Your task to perform on an android device: set the timer Image 0: 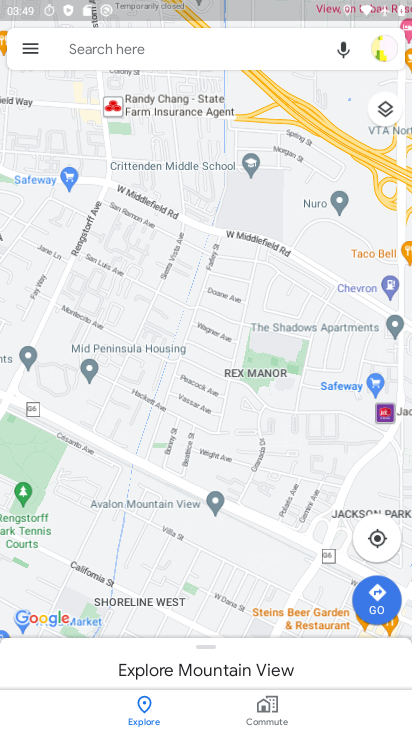
Step 0: press back button
Your task to perform on an android device: set the timer Image 1: 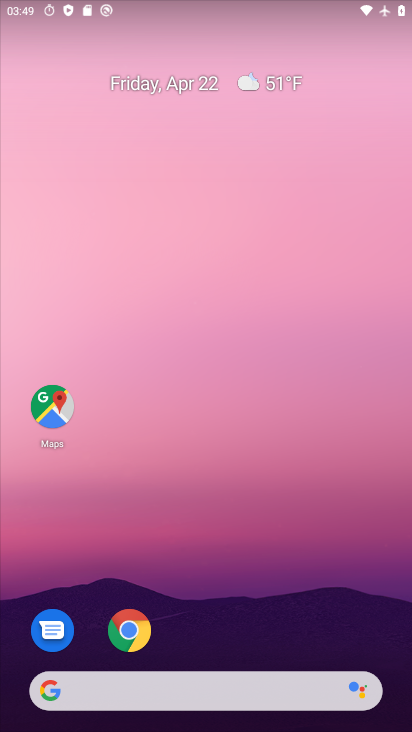
Step 1: drag from (229, 401) to (217, 104)
Your task to perform on an android device: set the timer Image 2: 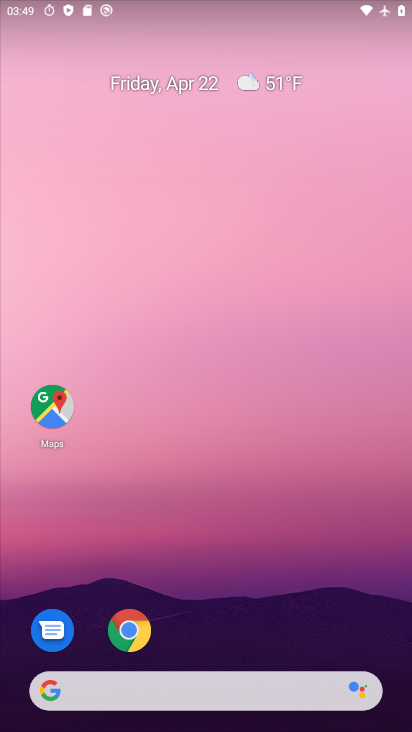
Step 2: drag from (391, 634) to (352, 62)
Your task to perform on an android device: set the timer Image 3: 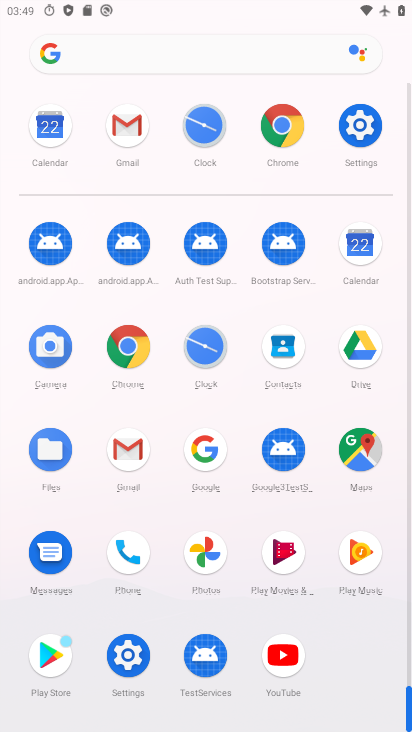
Step 3: drag from (8, 536) to (15, 402)
Your task to perform on an android device: set the timer Image 4: 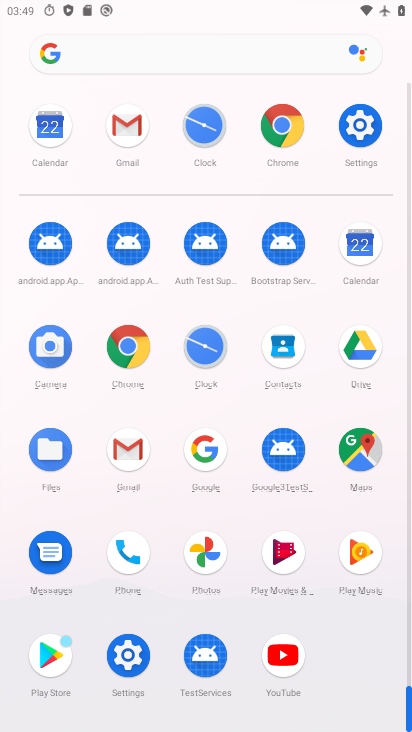
Step 4: click (205, 342)
Your task to perform on an android device: set the timer Image 5: 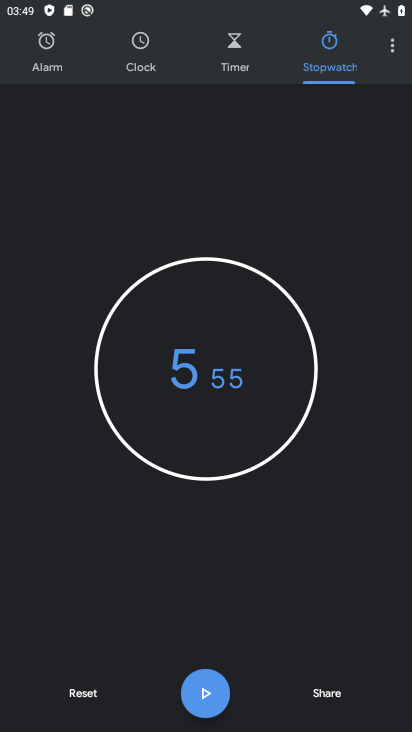
Step 5: click (219, 55)
Your task to perform on an android device: set the timer Image 6: 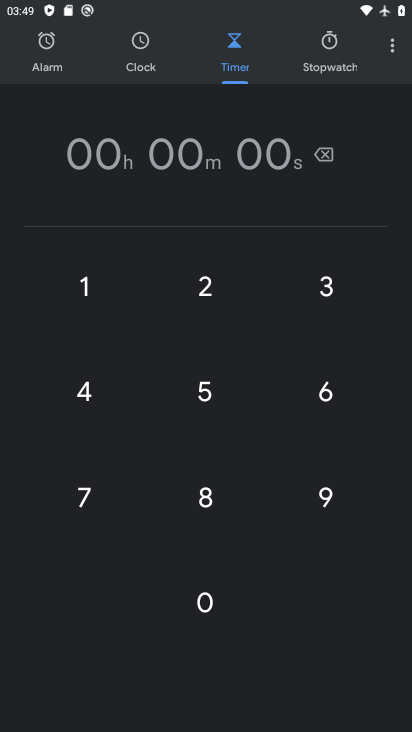
Step 6: click (91, 286)
Your task to perform on an android device: set the timer Image 7: 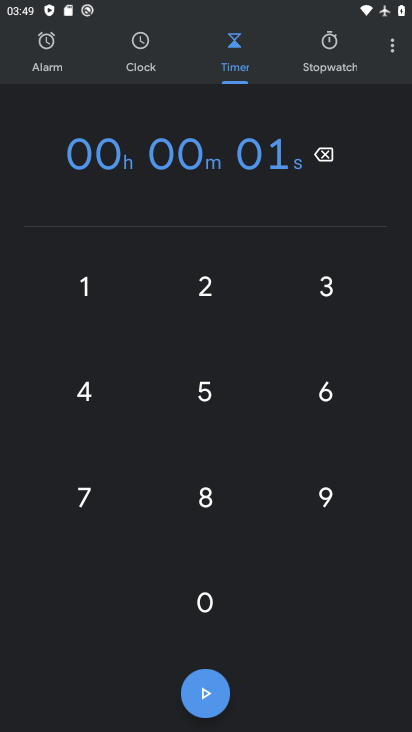
Step 7: click (225, 279)
Your task to perform on an android device: set the timer Image 8: 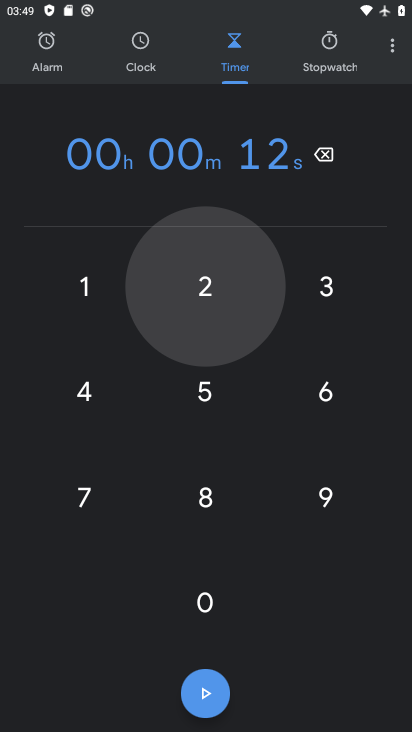
Step 8: click (203, 388)
Your task to perform on an android device: set the timer Image 9: 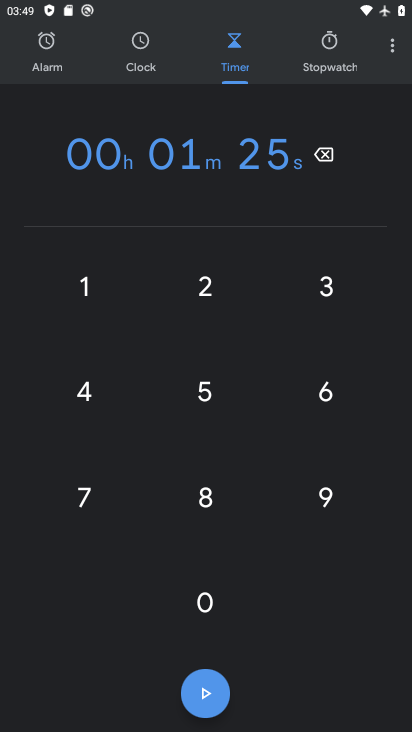
Step 9: click (85, 395)
Your task to perform on an android device: set the timer Image 10: 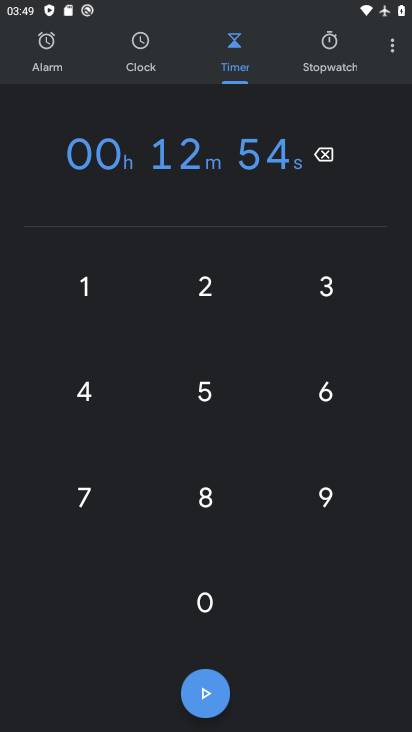
Step 10: click (90, 482)
Your task to perform on an android device: set the timer Image 11: 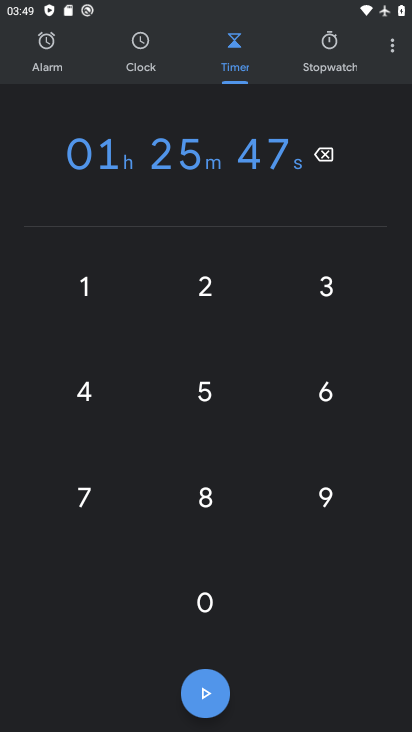
Step 11: click (212, 686)
Your task to perform on an android device: set the timer Image 12: 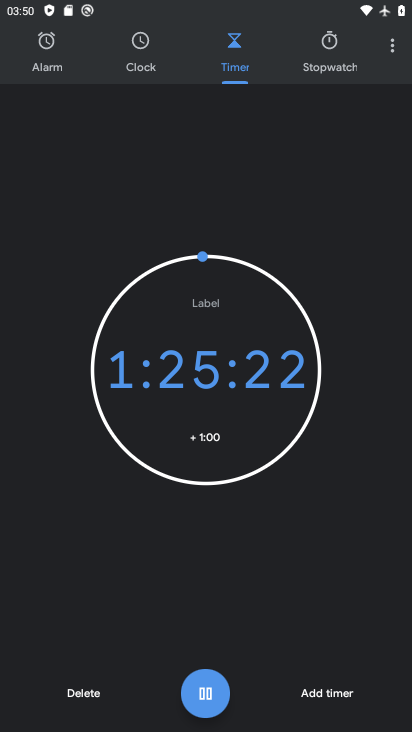
Step 12: task complete